Your task to perform on an android device: toggle sleep mode Image 0: 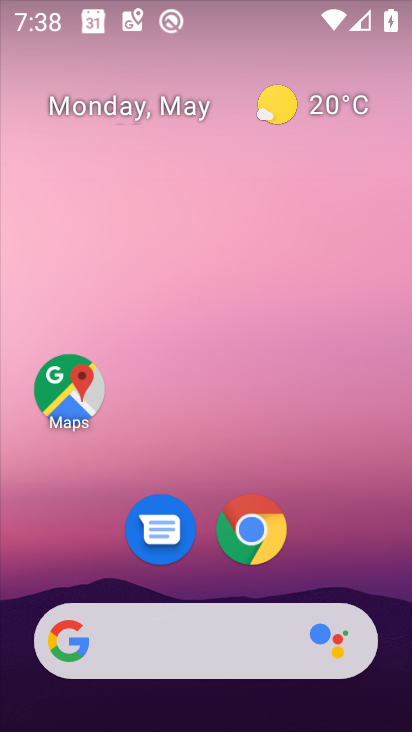
Step 0: drag from (14, 701) to (274, 194)
Your task to perform on an android device: toggle sleep mode Image 1: 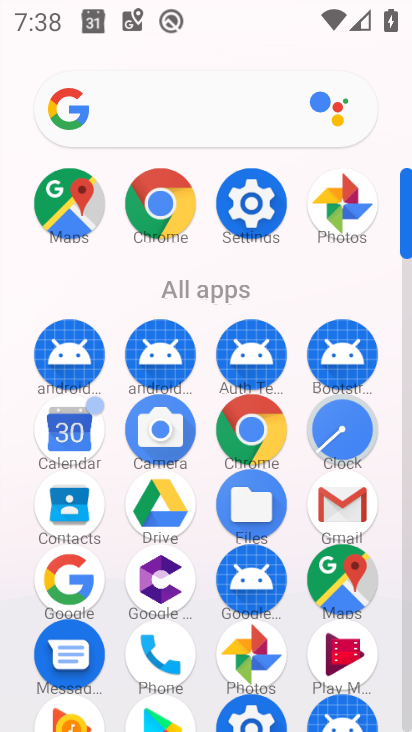
Step 1: click (266, 218)
Your task to perform on an android device: toggle sleep mode Image 2: 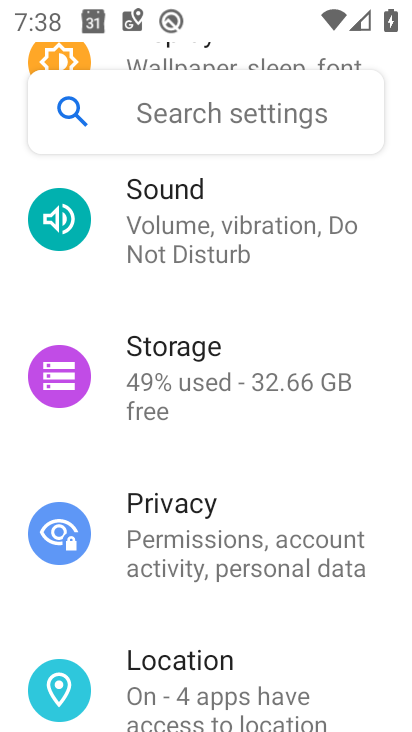
Step 2: drag from (13, 184) to (7, 114)
Your task to perform on an android device: toggle sleep mode Image 3: 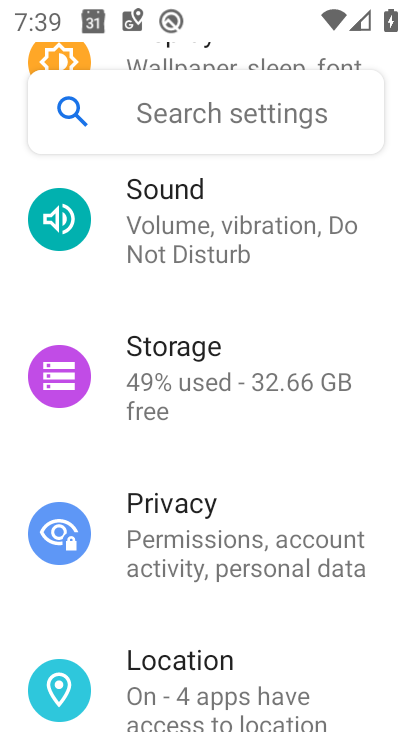
Step 3: click (32, 54)
Your task to perform on an android device: toggle sleep mode Image 4: 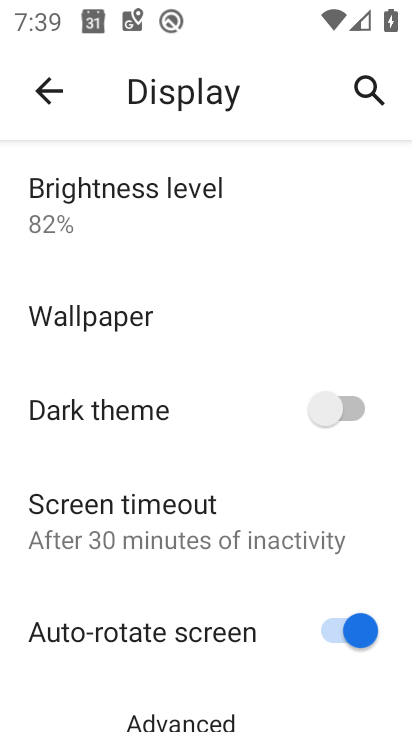
Step 4: drag from (13, 539) to (210, 223)
Your task to perform on an android device: toggle sleep mode Image 5: 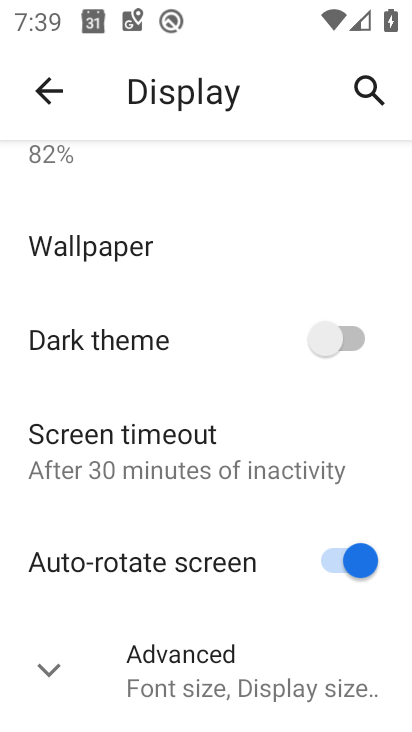
Step 5: click (97, 669)
Your task to perform on an android device: toggle sleep mode Image 6: 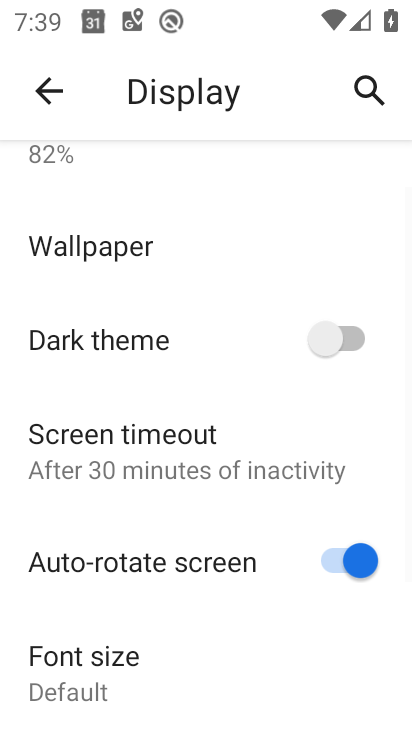
Step 6: task complete